Your task to perform on an android device: Go to sound settings Image 0: 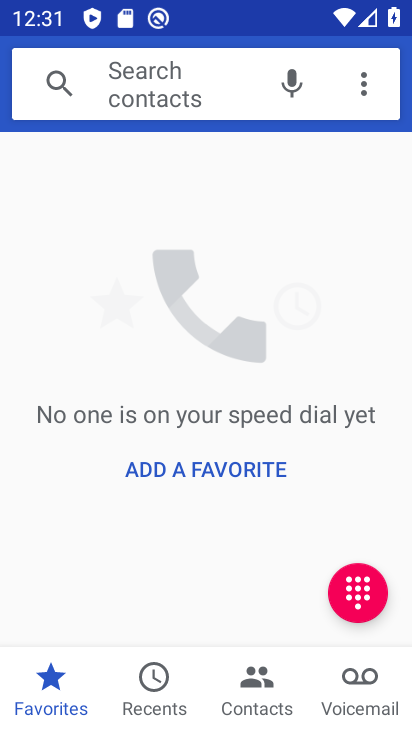
Step 0: press home button
Your task to perform on an android device: Go to sound settings Image 1: 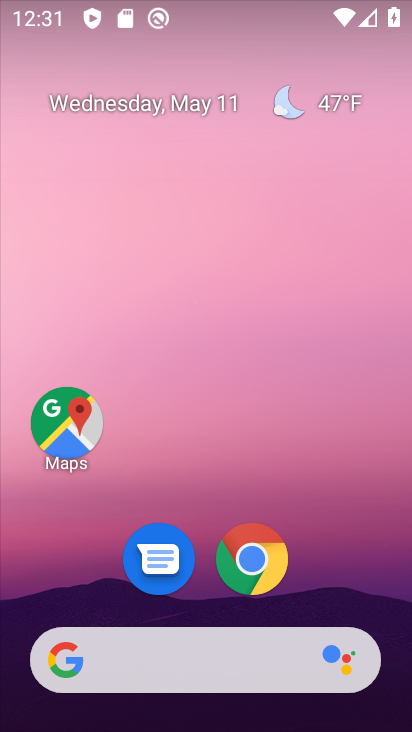
Step 1: drag from (199, 600) to (243, 0)
Your task to perform on an android device: Go to sound settings Image 2: 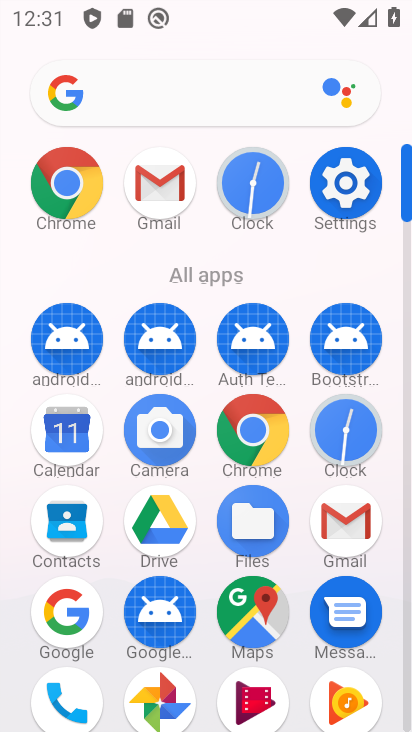
Step 2: click (355, 201)
Your task to perform on an android device: Go to sound settings Image 3: 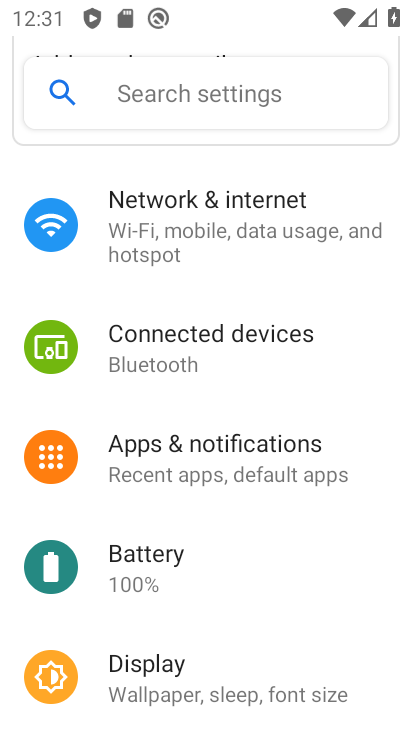
Step 3: drag from (215, 628) to (219, 277)
Your task to perform on an android device: Go to sound settings Image 4: 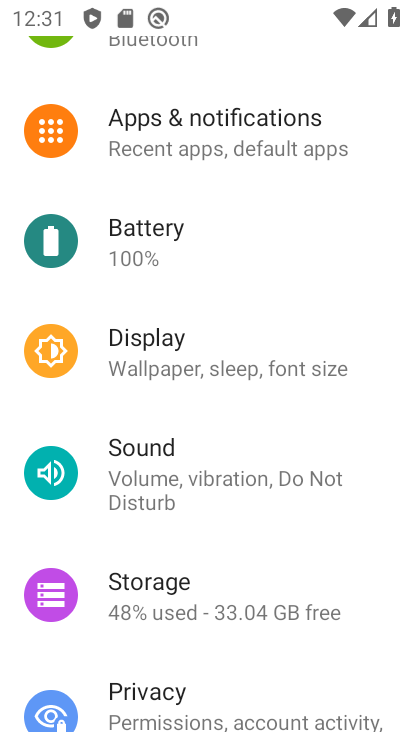
Step 4: click (134, 502)
Your task to perform on an android device: Go to sound settings Image 5: 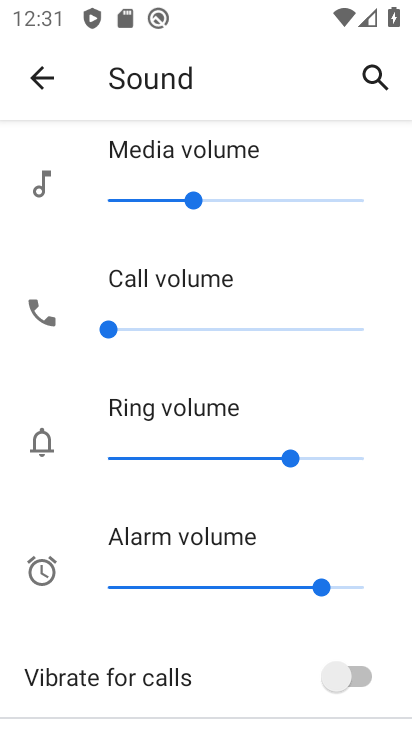
Step 5: task complete